Your task to perform on an android device: Open Chrome and go to the settings page Image 0: 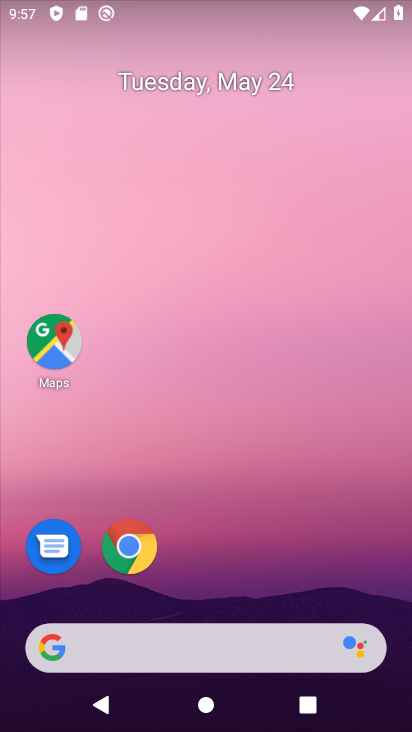
Step 0: drag from (311, 540) to (276, 171)
Your task to perform on an android device: Open Chrome and go to the settings page Image 1: 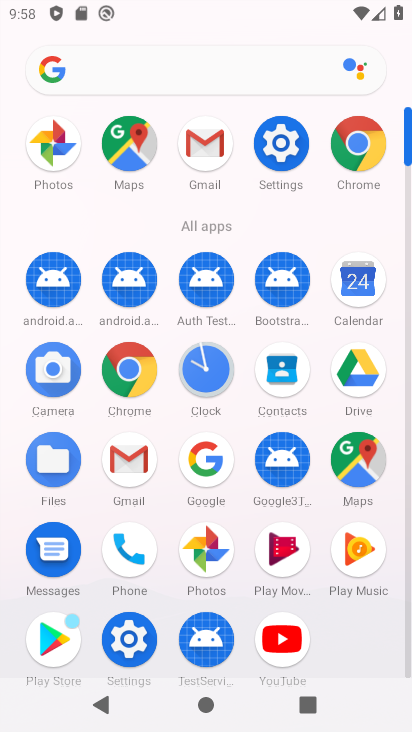
Step 1: click (134, 381)
Your task to perform on an android device: Open Chrome and go to the settings page Image 2: 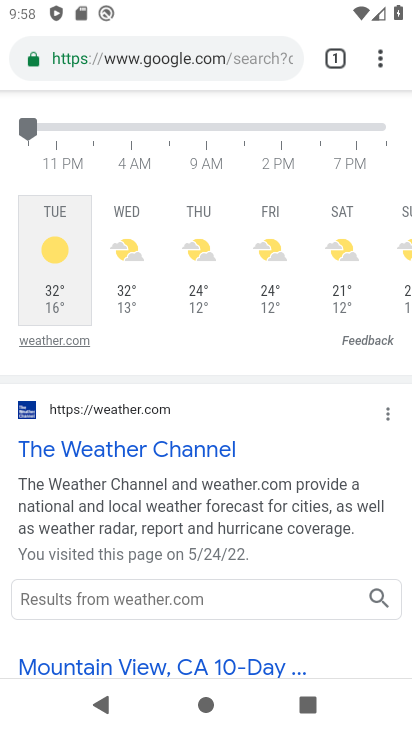
Step 2: drag from (352, 172) to (291, 478)
Your task to perform on an android device: Open Chrome and go to the settings page Image 3: 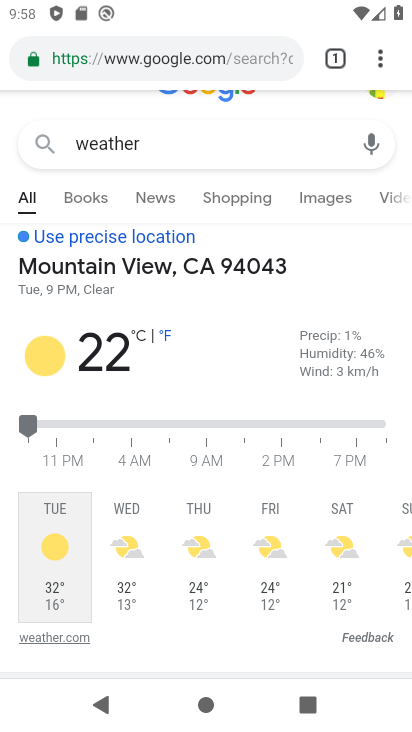
Step 3: click (383, 60)
Your task to perform on an android device: Open Chrome and go to the settings page Image 4: 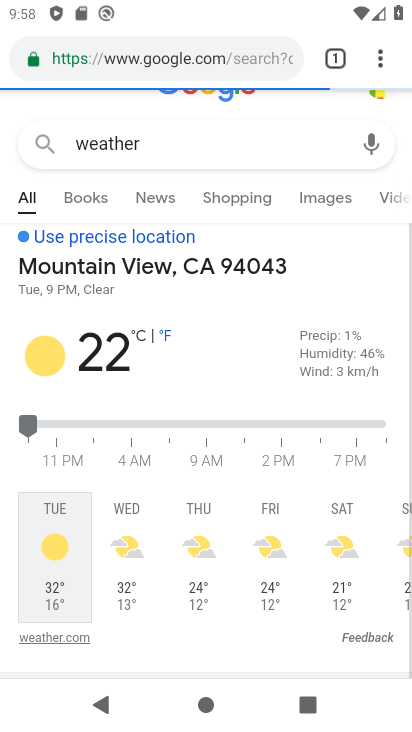
Step 4: task complete